Your task to perform on an android device: change the upload size in google photos Image 0: 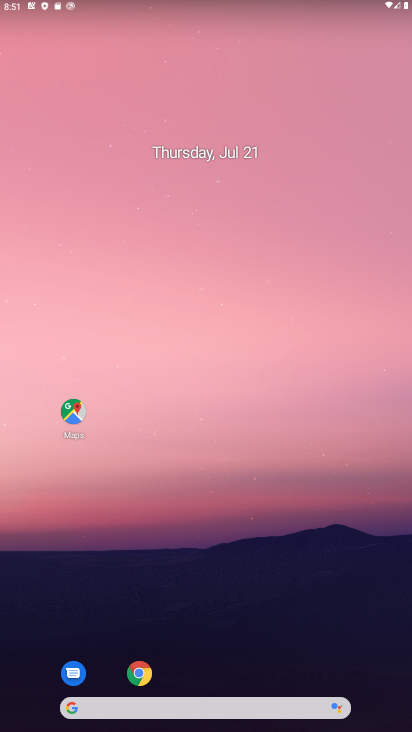
Step 0: drag from (222, 724) to (222, 190)
Your task to perform on an android device: change the upload size in google photos Image 1: 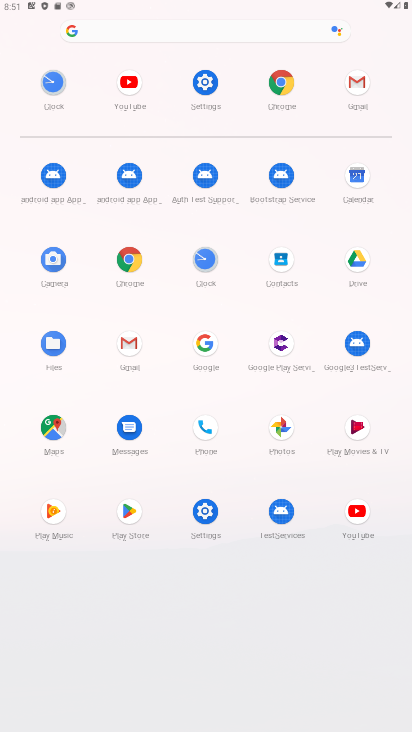
Step 1: click (287, 423)
Your task to perform on an android device: change the upload size in google photos Image 2: 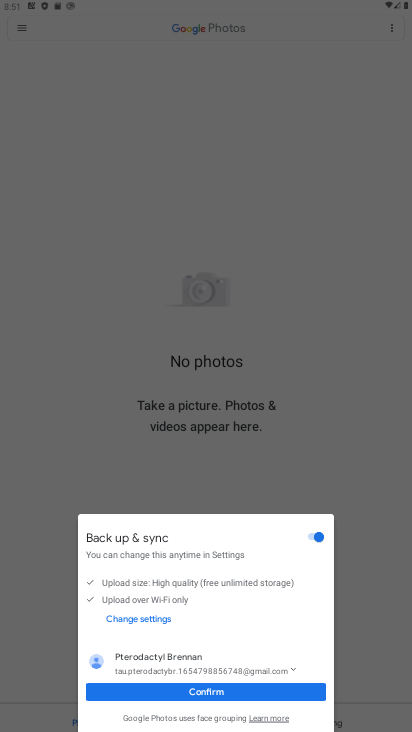
Step 2: click (206, 692)
Your task to perform on an android device: change the upload size in google photos Image 3: 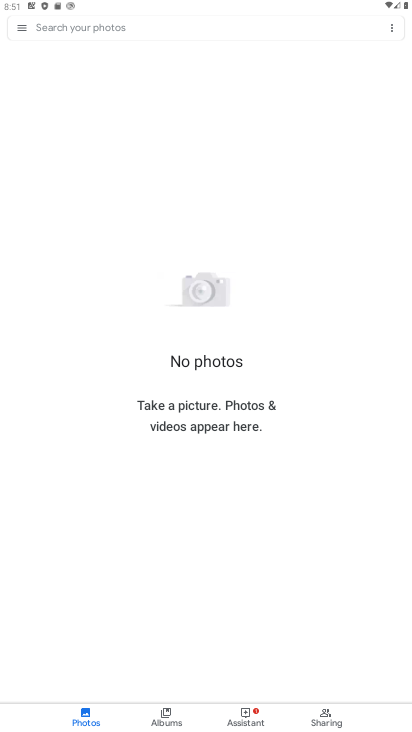
Step 3: click (20, 29)
Your task to perform on an android device: change the upload size in google photos Image 4: 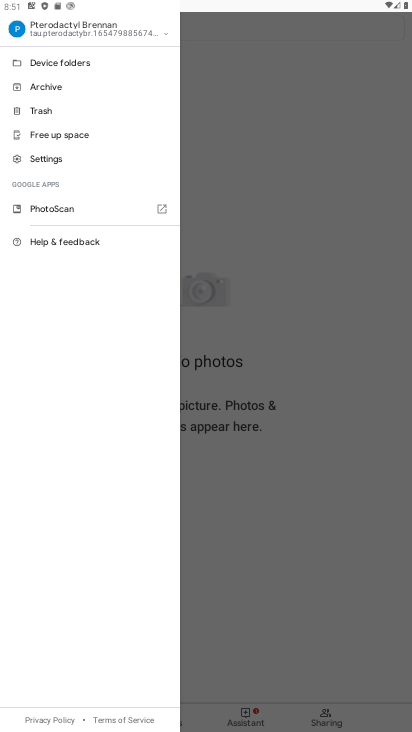
Step 4: click (43, 157)
Your task to perform on an android device: change the upload size in google photos Image 5: 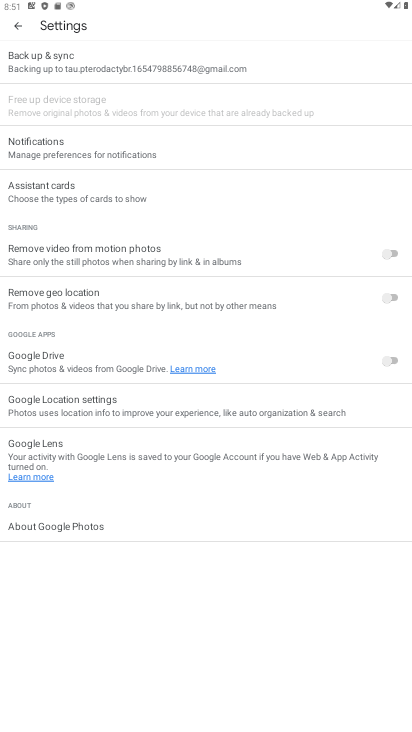
Step 5: click (62, 61)
Your task to perform on an android device: change the upload size in google photos Image 6: 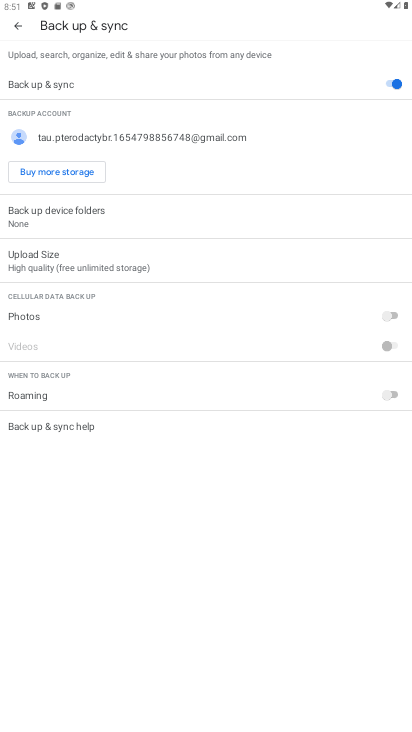
Step 6: click (33, 255)
Your task to perform on an android device: change the upload size in google photos Image 7: 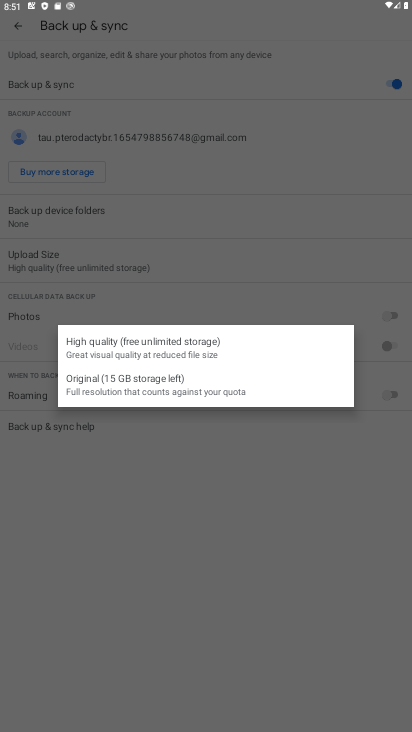
Step 7: click (117, 387)
Your task to perform on an android device: change the upload size in google photos Image 8: 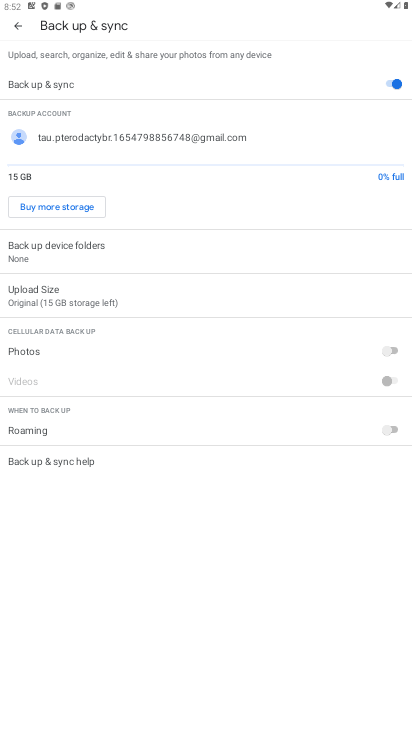
Step 8: task complete